Your task to perform on an android device: Show me popular games on the Play Store Image 0: 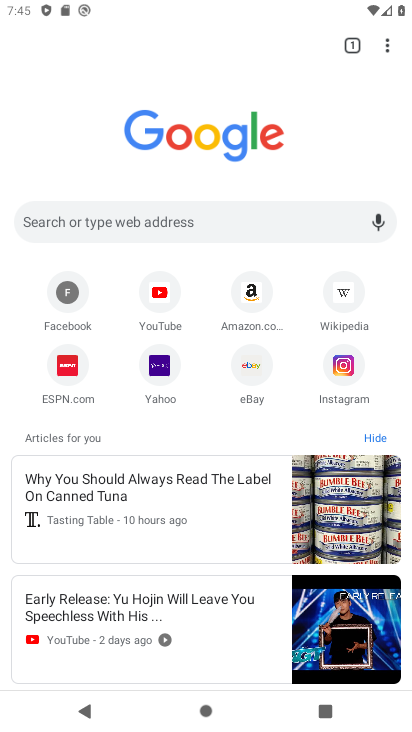
Step 0: press home button
Your task to perform on an android device: Show me popular games on the Play Store Image 1: 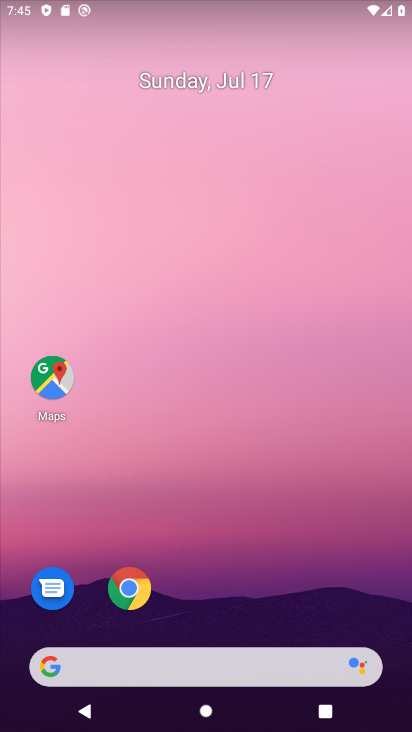
Step 1: drag from (255, 598) to (268, 234)
Your task to perform on an android device: Show me popular games on the Play Store Image 2: 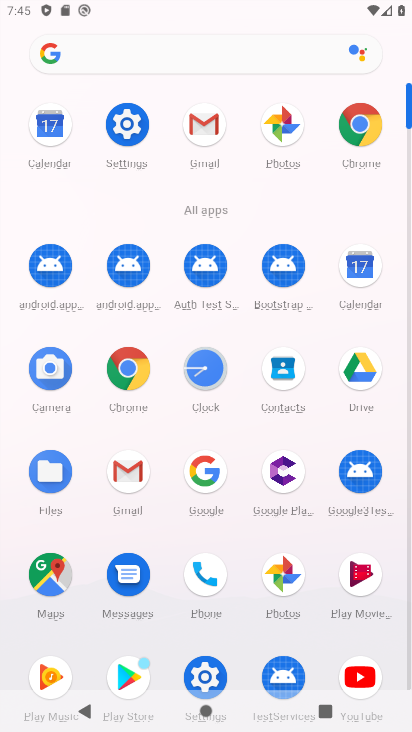
Step 2: click (119, 675)
Your task to perform on an android device: Show me popular games on the Play Store Image 3: 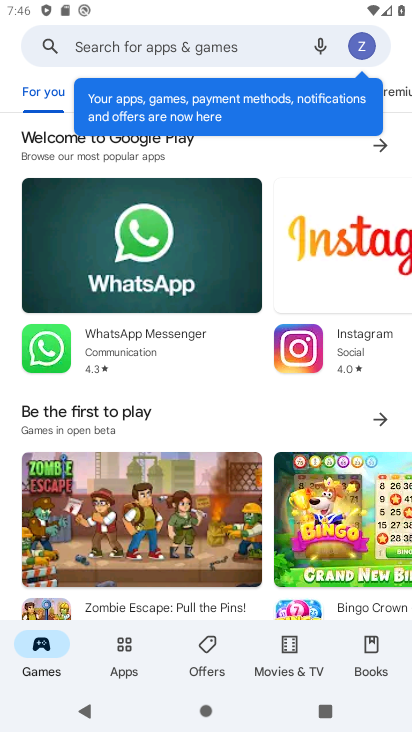
Step 3: click (143, 99)
Your task to perform on an android device: Show me popular games on the Play Store Image 4: 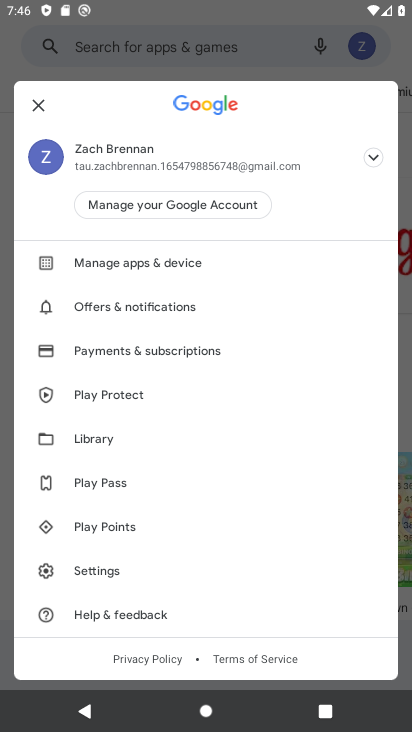
Step 4: click (144, 96)
Your task to perform on an android device: Show me popular games on the Play Store Image 5: 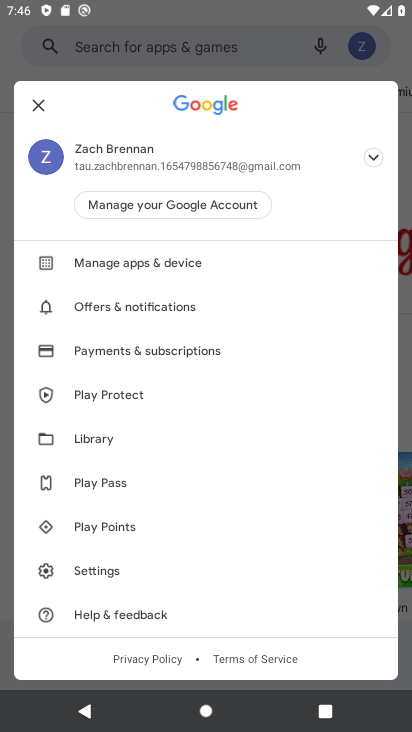
Step 5: click (26, 106)
Your task to perform on an android device: Show me popular games on the Play Store Image 6: 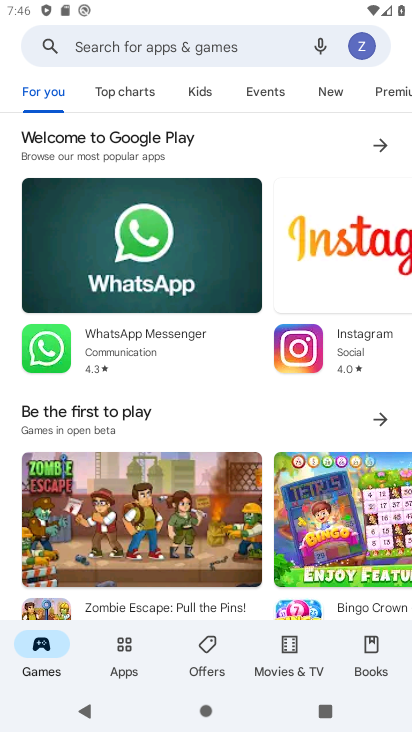
Step 6: click (116, 77)
Your task to perform on an android device: Show me popular games on the Play Store Image 7: 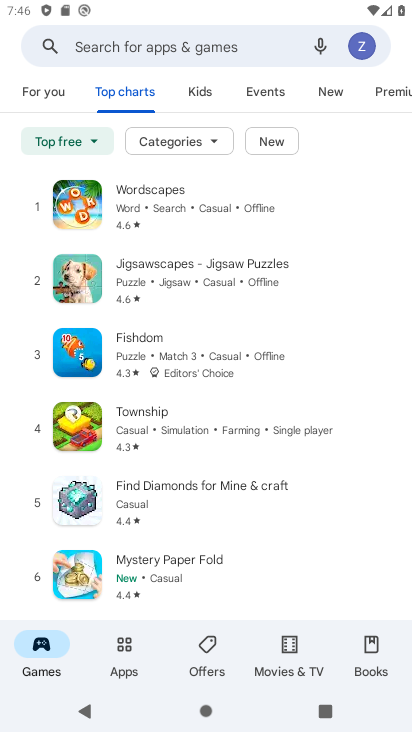
Step 7: task complete